Your task to perform on an android device: Go to internet settings Image 0: 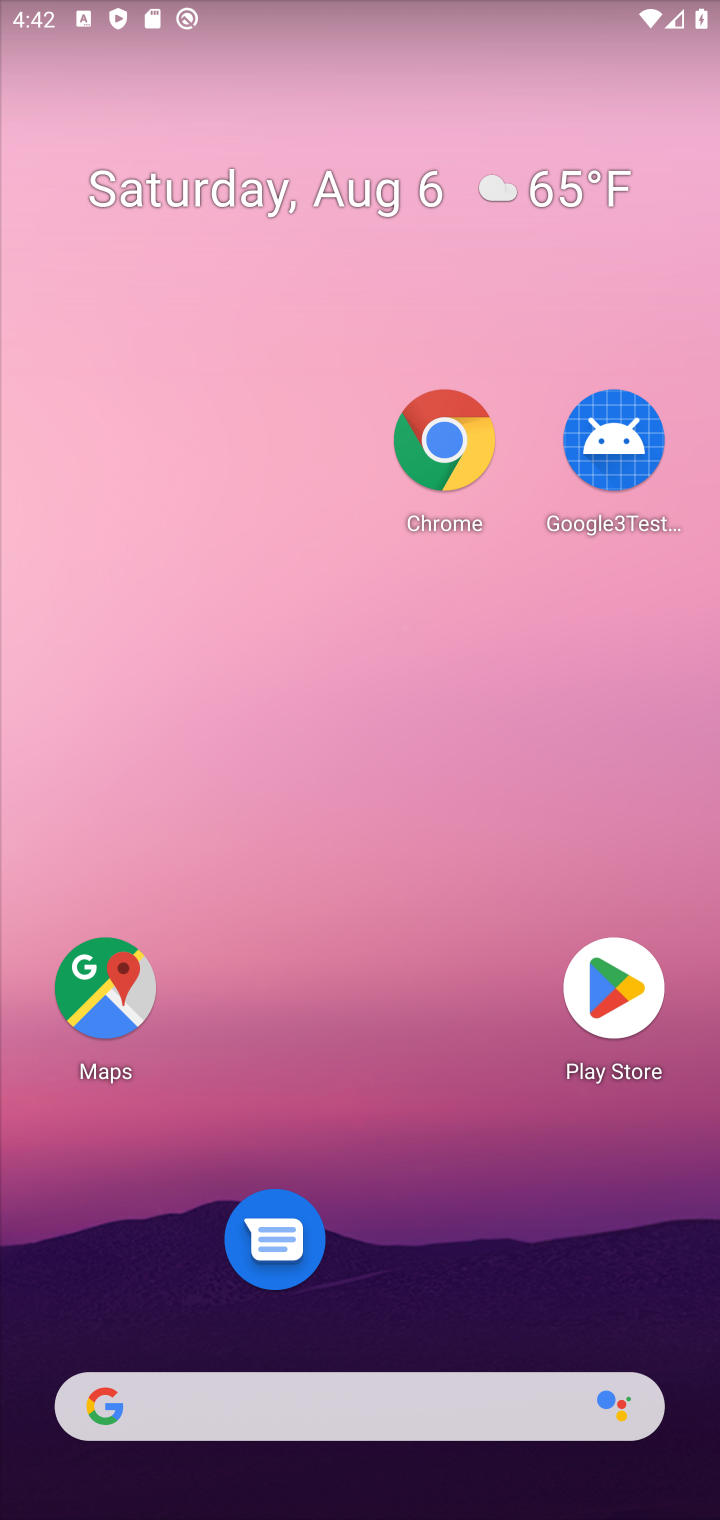
Step 0: drag from (393, 1383) to (392, 4)
Your task to perform on an android device: Go to internet settings Image 1: 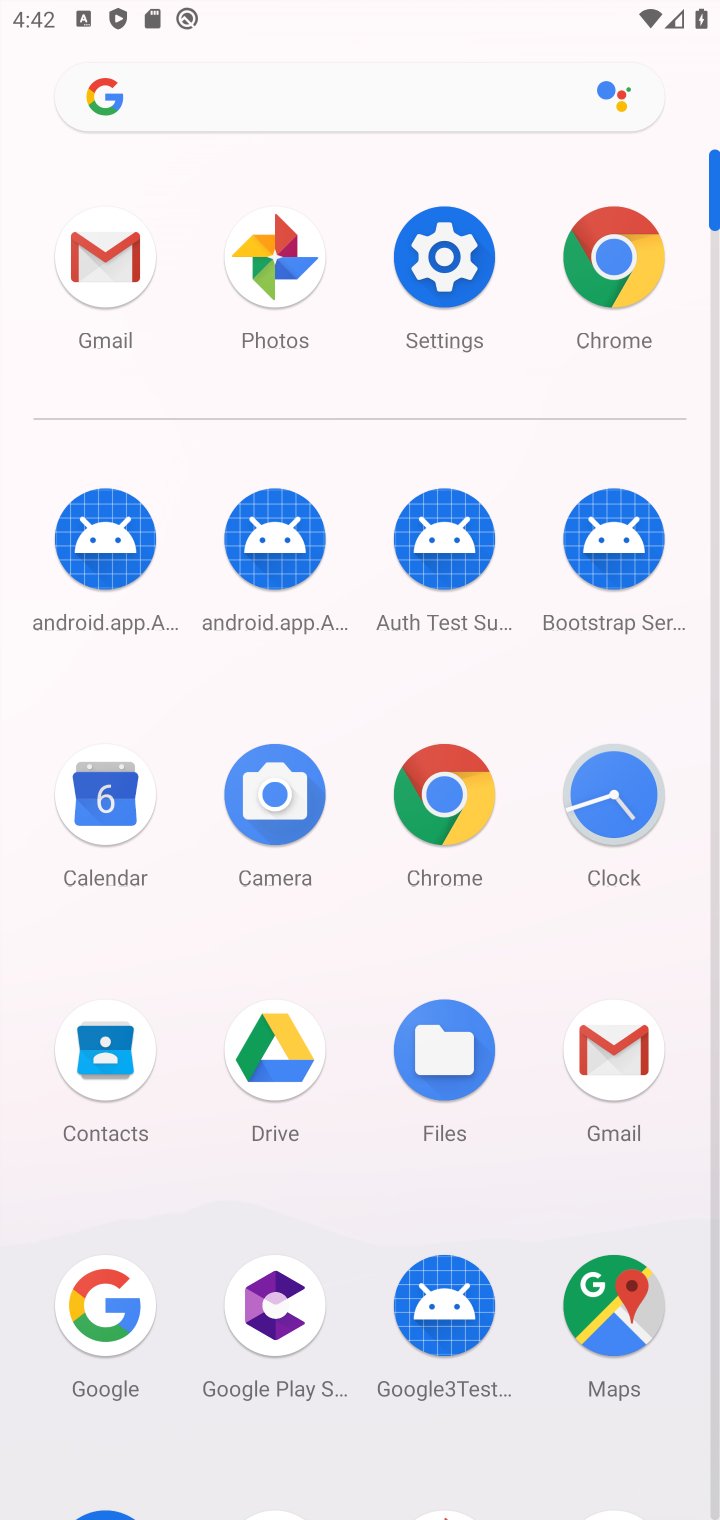
Step 1: click (431, 241)
Your task to perform on an android device: Go to internet settings Image 2: 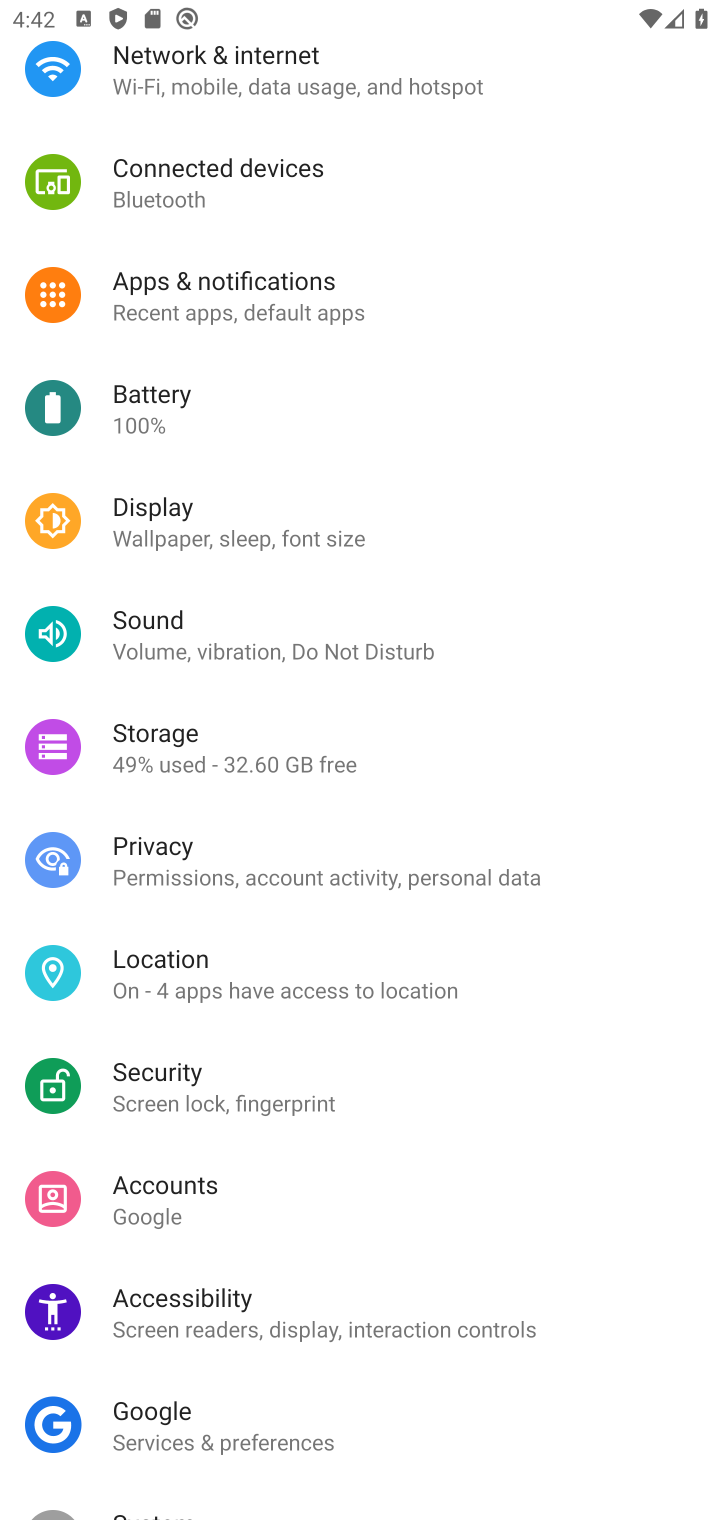
Step 2: drag from (431, 241) to (633, 1306)
Your task to perform on an android device: Go to internet settings Image 3: 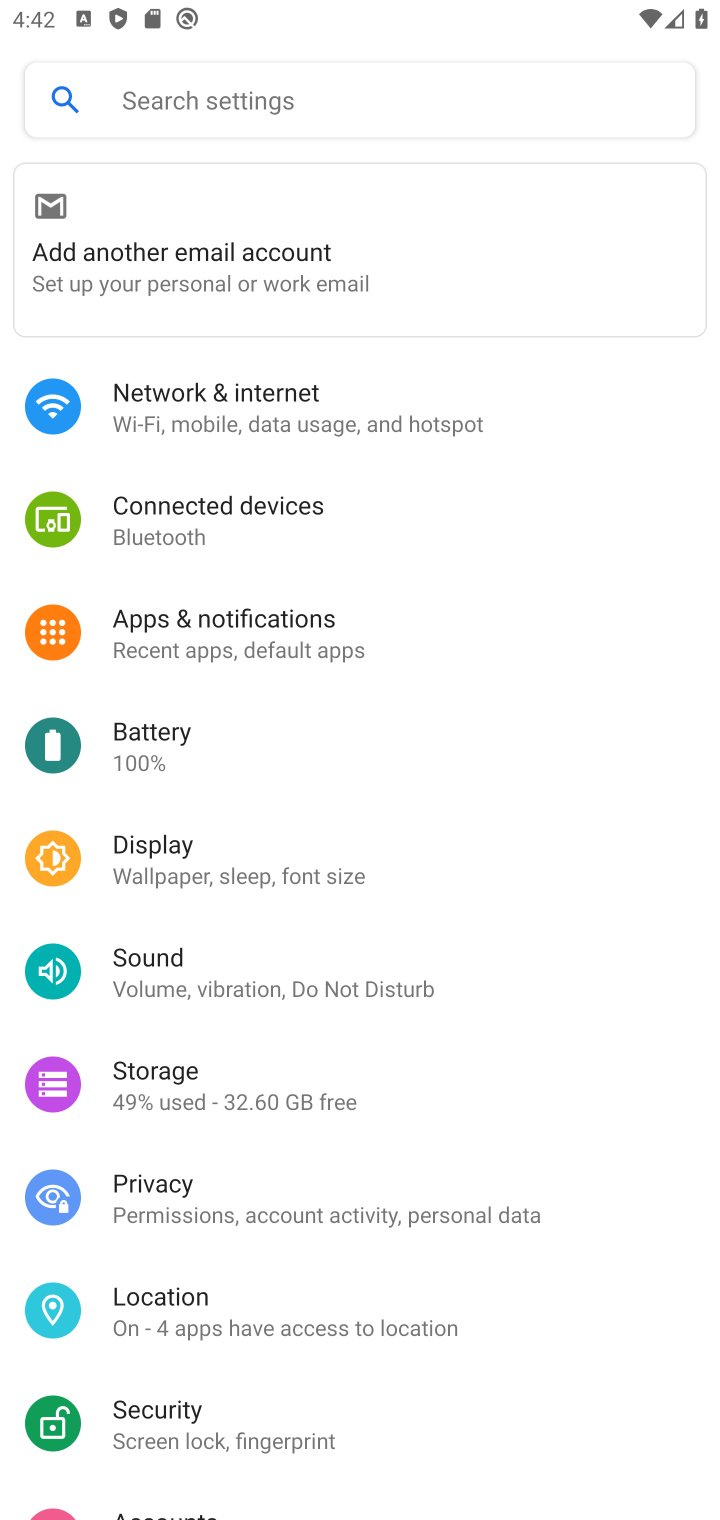
Step 3: click (294, 400)
Your task to perform on an android device: Go to internet settings Image 4: 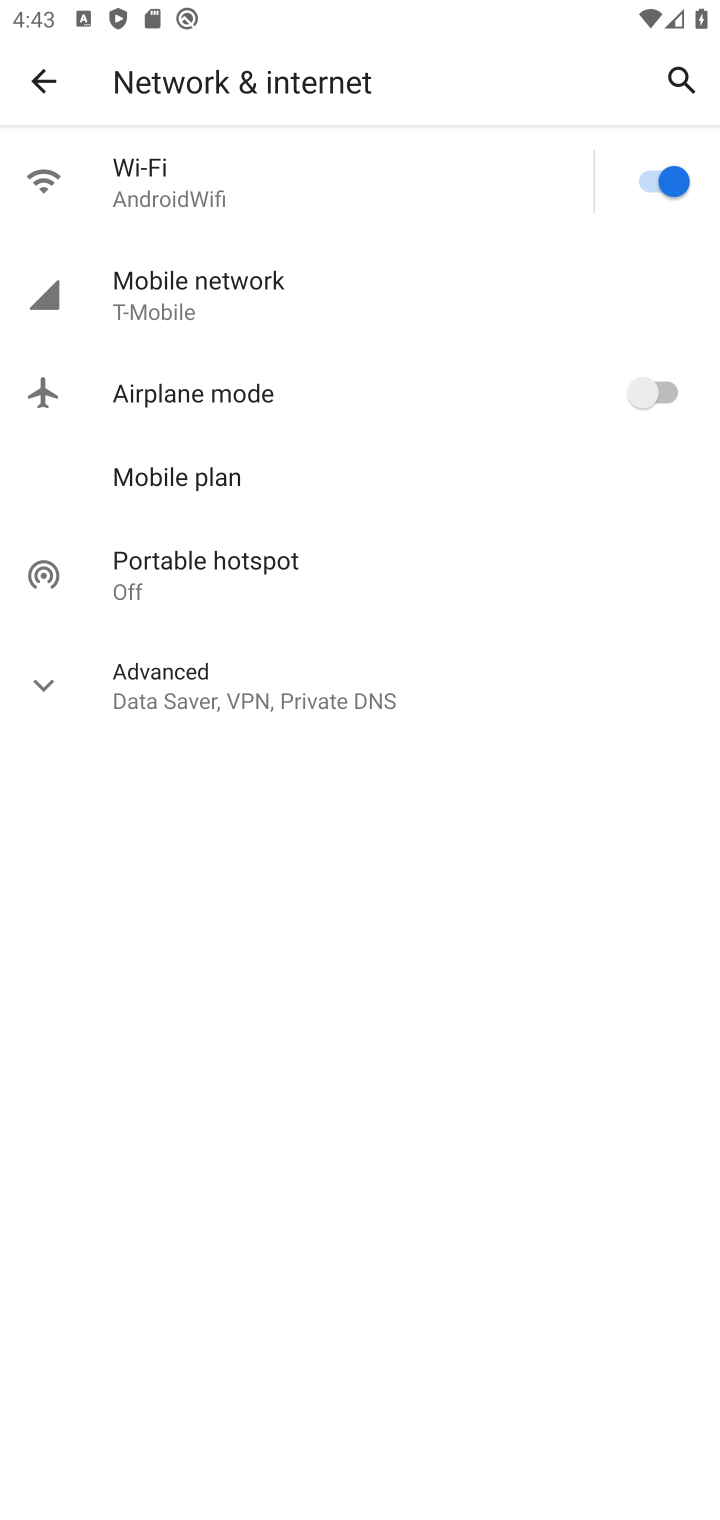
Step 4: task complete